Your task to perform on an android device: open the mobile data screen to see how much data has been used Image 0: 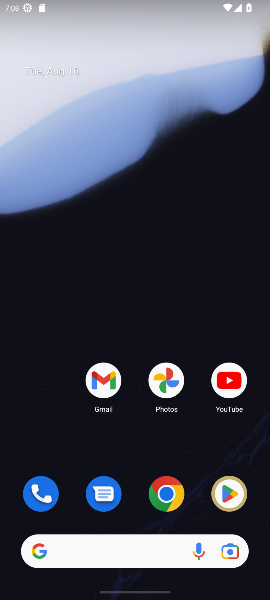
Step 0: click (119, 42)
Your task to perform on an android device: open the mobile data screen to see how much data has been used Image 1: 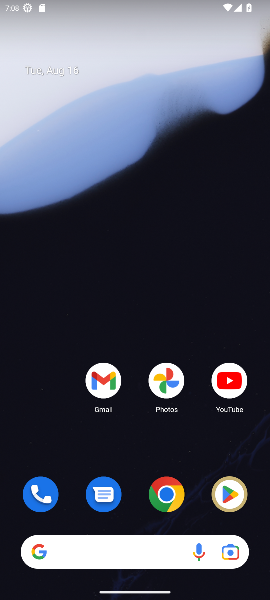
Step 1: task complete